Your task to perform on an android device: turn on wifi Image 0: 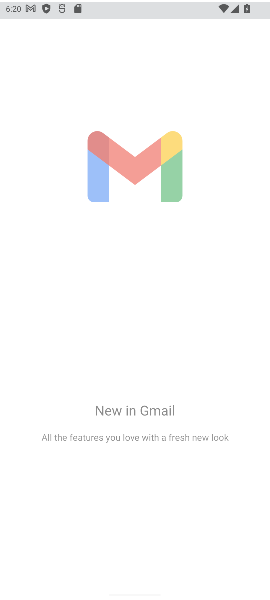
Step 0: click (92, 256)
Your task to perform on an android device: turn on wifi Image 1: 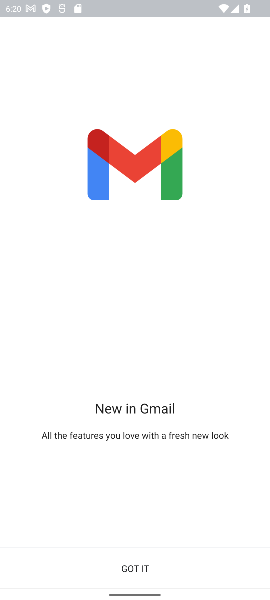
Step 1: press home button
Your task to perform on an android device: turn on wifi Image 2: 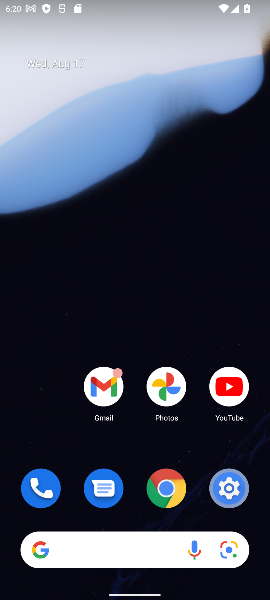
Step 2: drag from (122, 172) to (139, 5)
Your task to perform on an android device: turn on wifi Image 3: 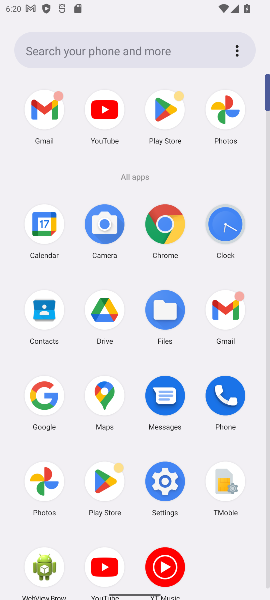
Step 3: click (165, 480)
Your task to perform on an android device: turn on wifi Image 4: 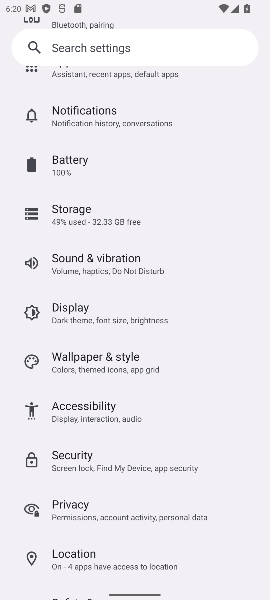
Step 4: drag from (82, 146) to (136, 550)
Your task to perform on an android device: turn on wifi Image 5: 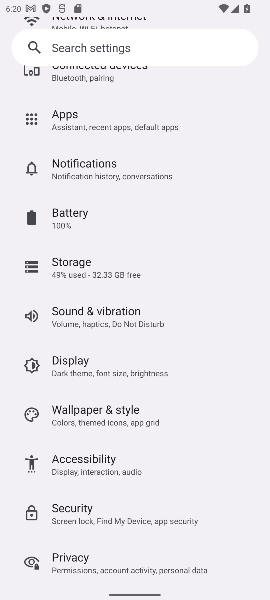
Step 5: drag from (126, 287) to (147, 546)
Your task to perform on an android device: turn on wifi Image 6: 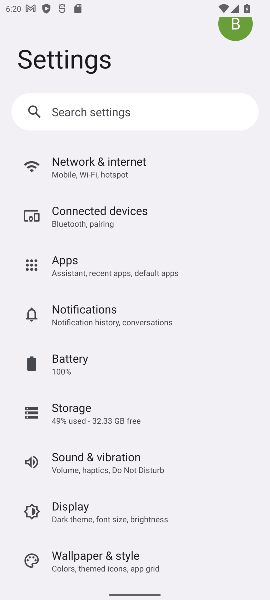
Step 6: drag from (108, 160) to (136, 491)
Your task to perform on an android device: turn on wifi Image 7: 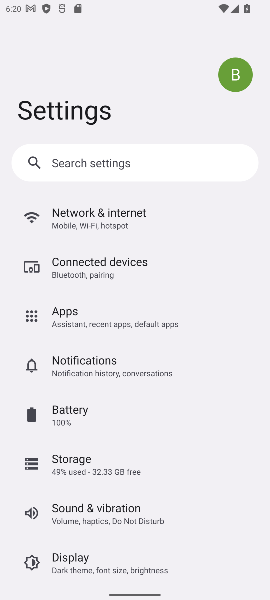
Step 7: click (94, 223)
Your task to perform on an android device: turn on wifi Image 8: 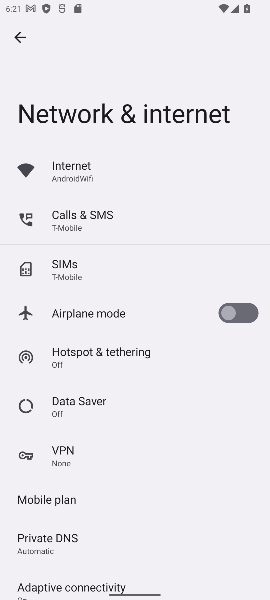
Step 8: click (66, 180)
Your task to perform on an android device: turn on wifi Image 9: 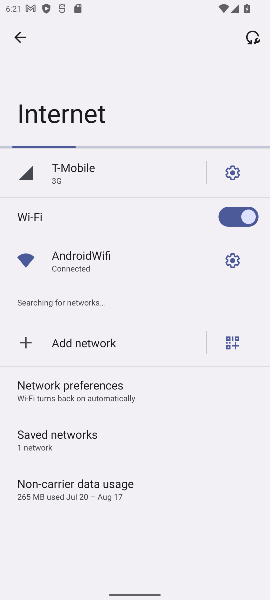
Step 9: task complete